Your task to perform on an android device: turn on sleep mode Image 0: 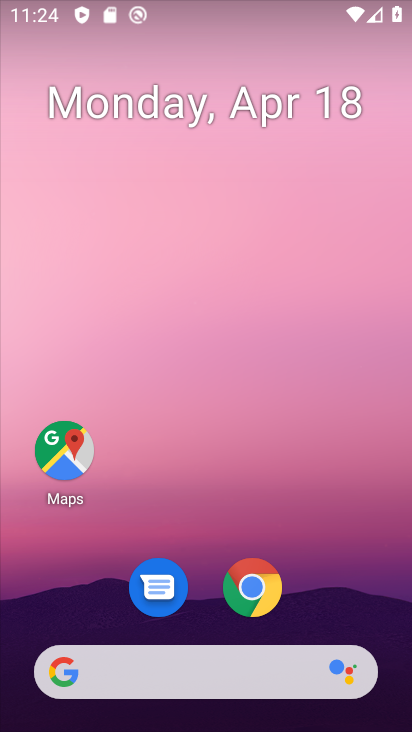
Step 0: drag from (193, 522) to (291, 80)
Your task to perform on an android device: turn on sleep mode Image 1: 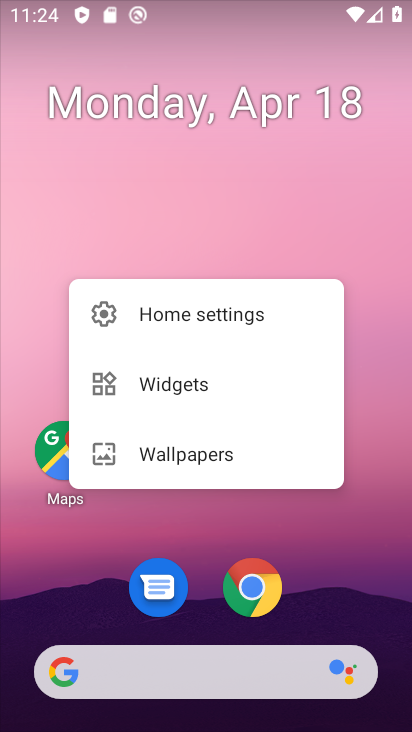
Step 1: drag from (364, 549) to (410, 460)
Your task to perform on an android device: turn on sleep mode Image 2: 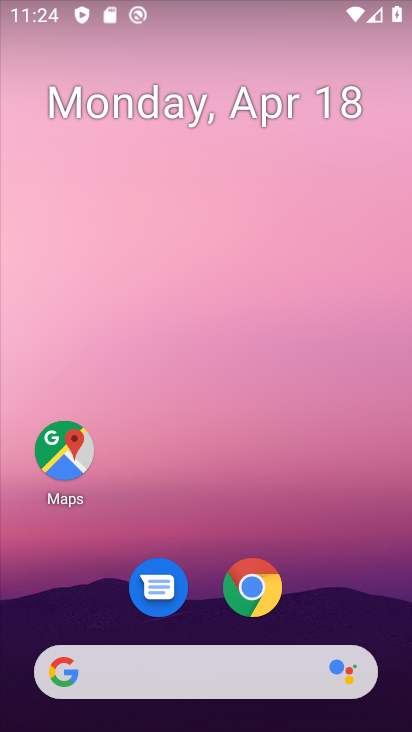
Step 2: drag from (283, 638) to (372, 59)
Your task to perform on an android device: turn on sleep mode Image 3: 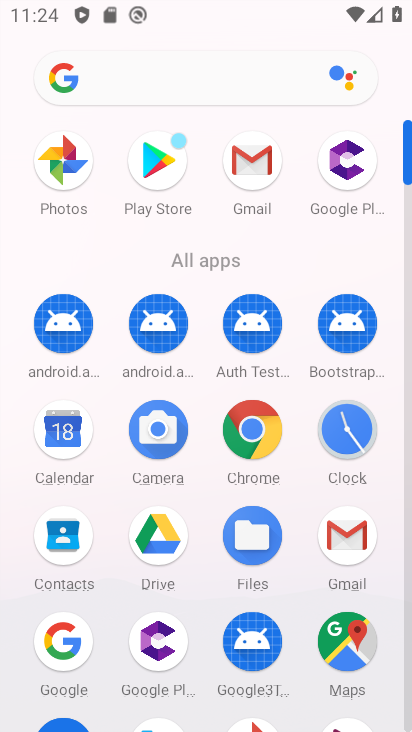
Step 3: drag from (142, 658) to (207, 357)
Your task to perform on an android device: turn on sleep mode Image 4: 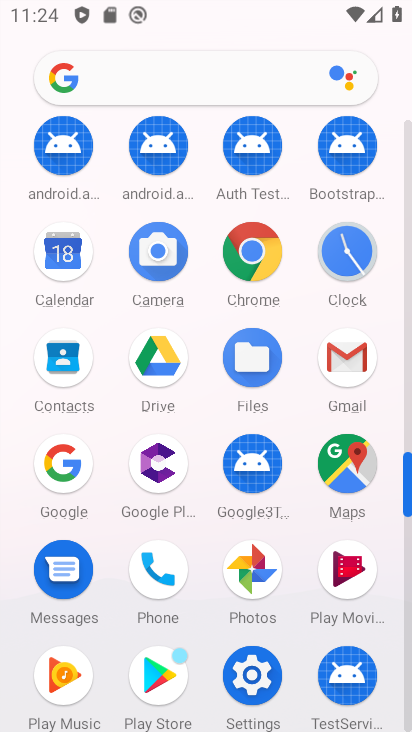
Step 4: click (253, 675)
Your task to perform on an android device: turn on sleep mode Image 5: 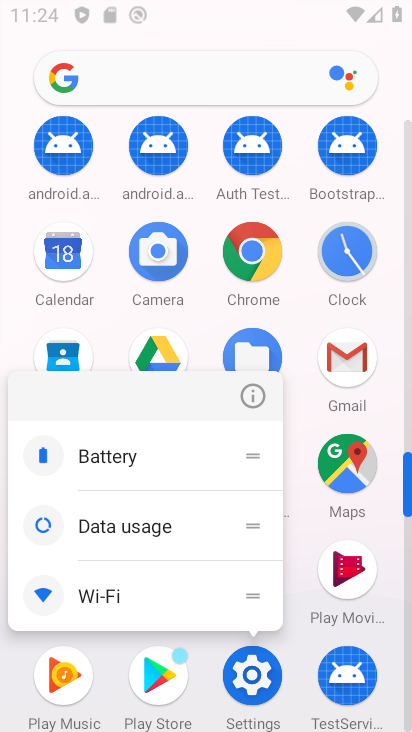
Step 5: click (250, 687)
Your task to perform on an android device: turn on sleep mode Image 6: 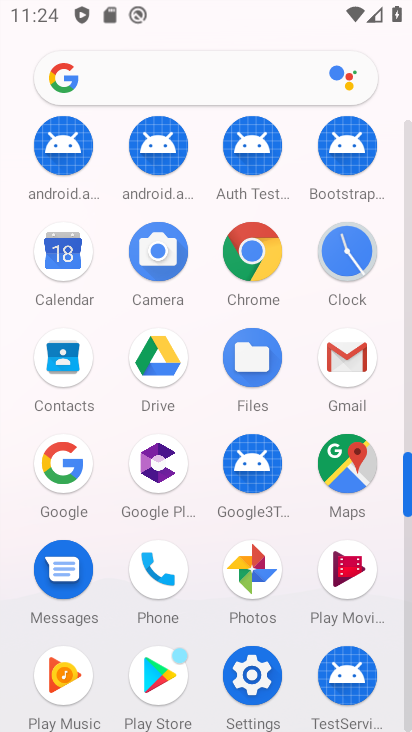
Step 6: click (238, 675)
Your task to perform on an android device: turn on sleep mode Image 7: 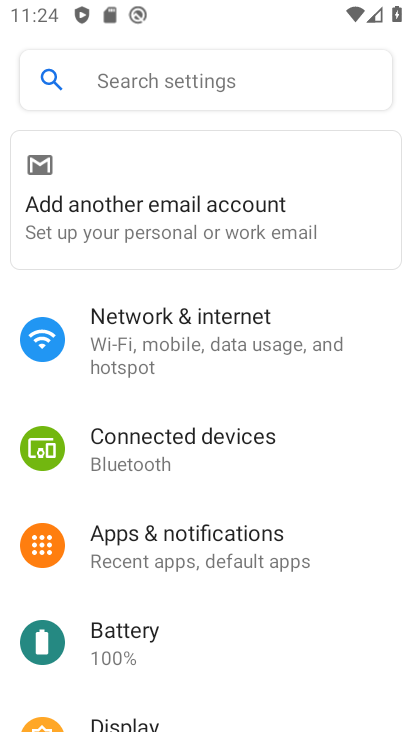
Step 7: drag from (238, 542) to (290, 405)
Your task to perform on an android device: turn on sleep mode Image 8: 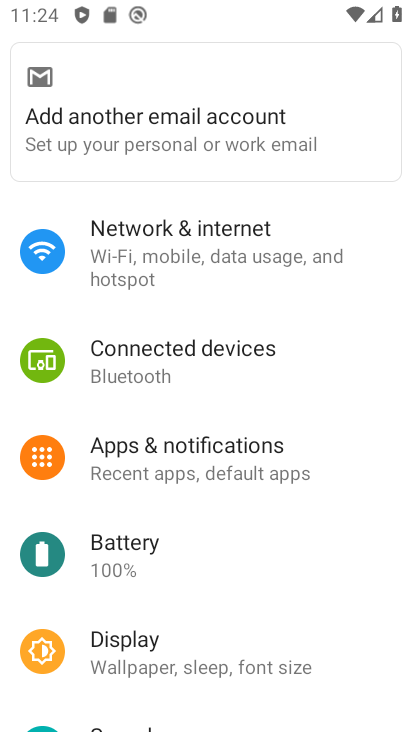
Step 8: click (146, 660)
Your task to perform on an android device: turn on sleep mode Image 9: 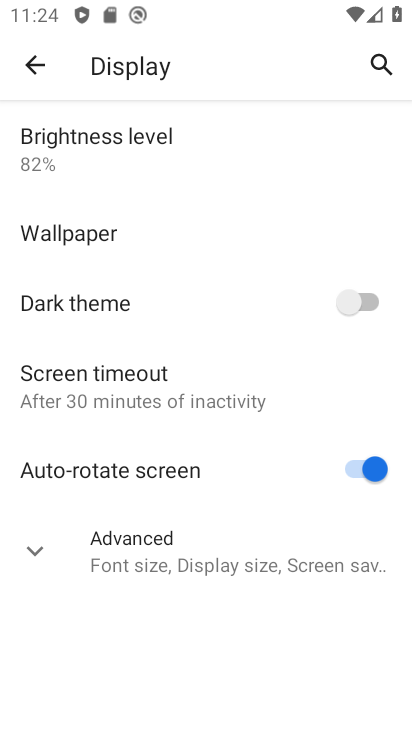
Step 9: click (150, 553)
Your task to perform on an android device: turn on sleep mode Image 10: 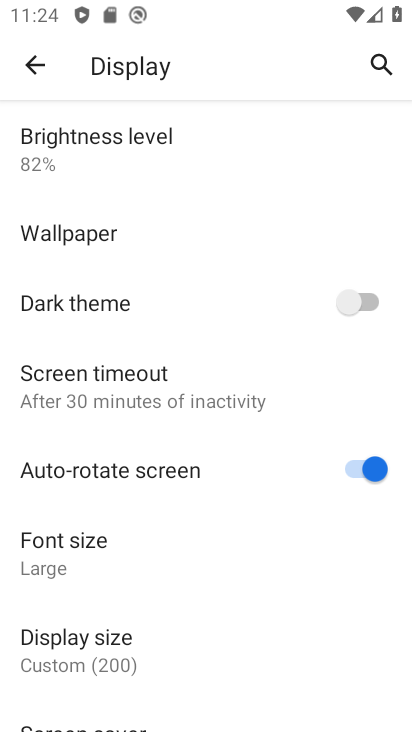
Step 10: task complete